Your task to perform on an android device: snooze an email in the gmail app Image 0: 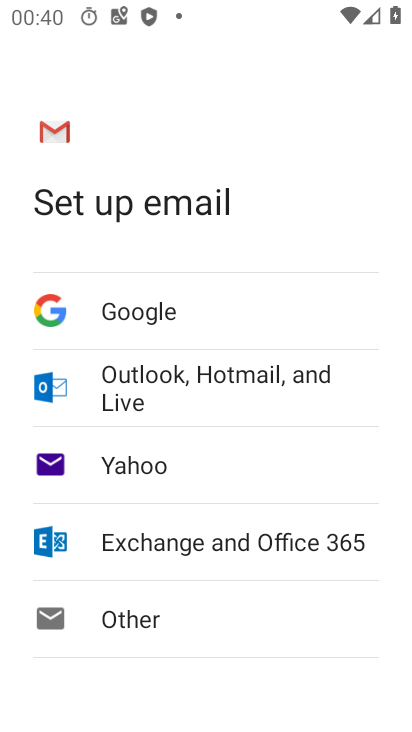
Step 0: press home button
Your task to perform on an android device: snooze an email in the gmail app Image 1: 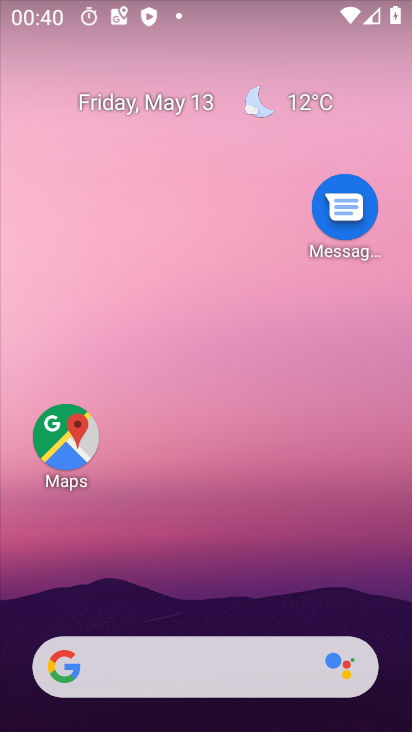
Step 1: drag from (350, 577) to (308, 133)
Your task to perform on an android device: snooze an email in the gmail app Image 2: 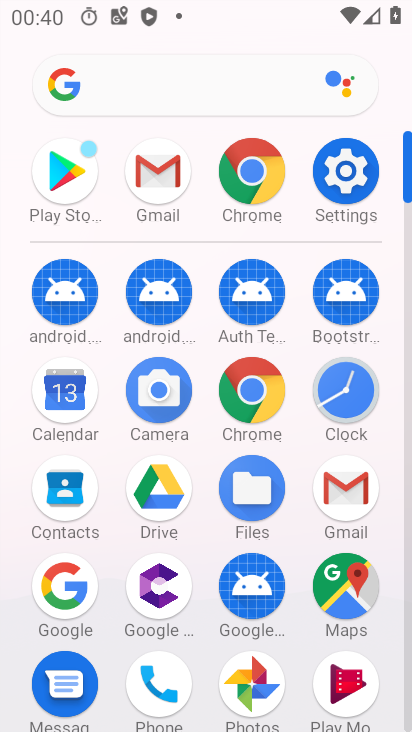
Step 2: click (149, 174)
Your task to perform on an android device: snooze an email in the gmail app Image 3: 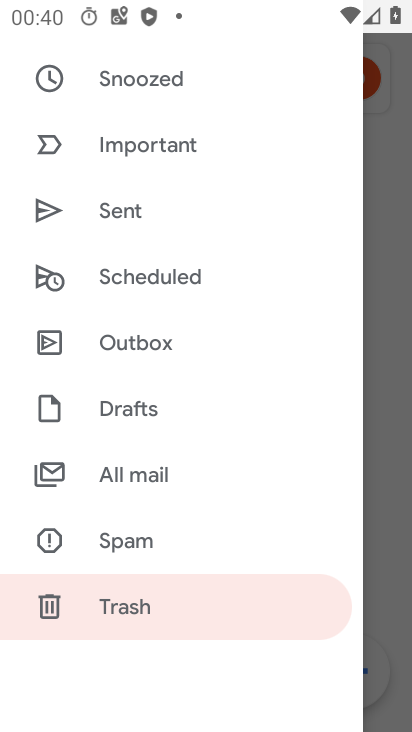
Step 3: task complete